Your task to perform on an android device: Search for "razer deathadder" on amazon.com, select the first entry, and add it to the cart. Image 0: 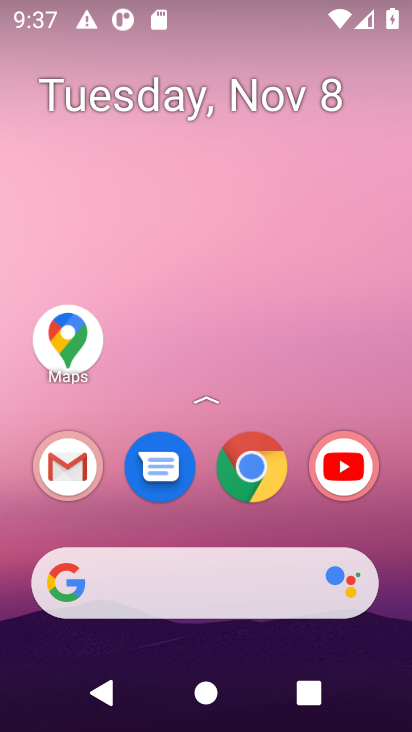
Step 0: click (225, 571)
Your task to perform on an android device: Search for "razer deathadder" on amazon.com, select the first entry, and add it to the cart. Image 1: 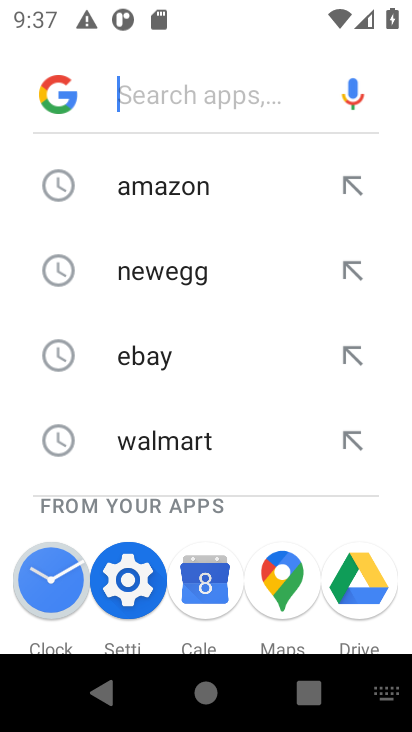
Step 1: click (160, 169)
Your task to perform on an android device: Search for "razer deathadder" on amazon.com, select the first entry, and add it to the cart. Image 2: 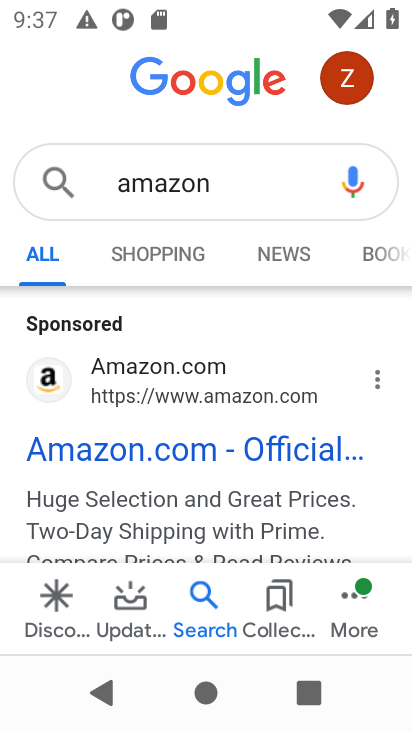
Step 2: click (178, 462)
Your task to perform on an android device: Search for "razer deathadder" on amazon.com, select the first entry, and add it to the cart. Image 3: 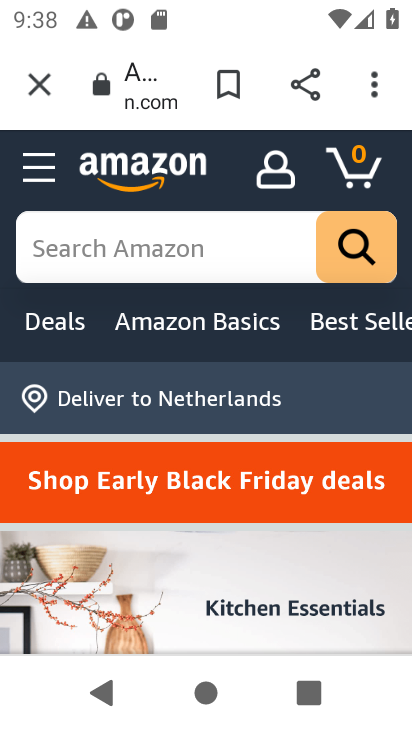
Step 3: click (207, 259)
Your task to perform on an android device: Search for "razer deathadder" on amazon.com, select the first entry, and add it to the cart. Image 4: 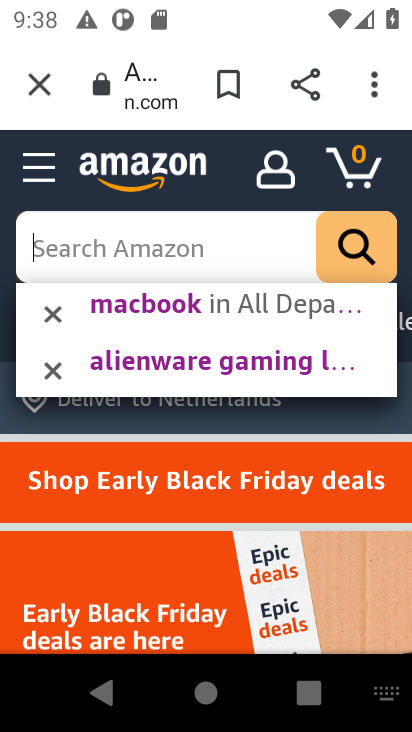
Step 4: type "razer deathadder"
Your task to perform on an android device: Search for "razer deathadder" on amazon.com, select the first entry, and add it to the cart. Image 5: 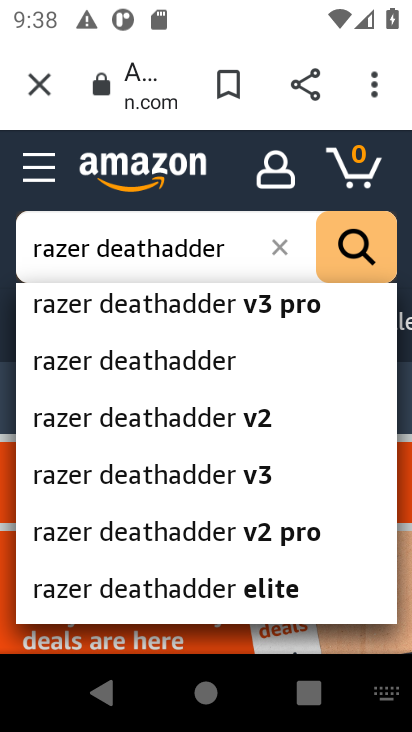
Step 5: click (230, 317)
Your task to perform on an android device: Search for "razer deathadder" on amazon.com, select the first entry, and add it to the cart. Image 6: 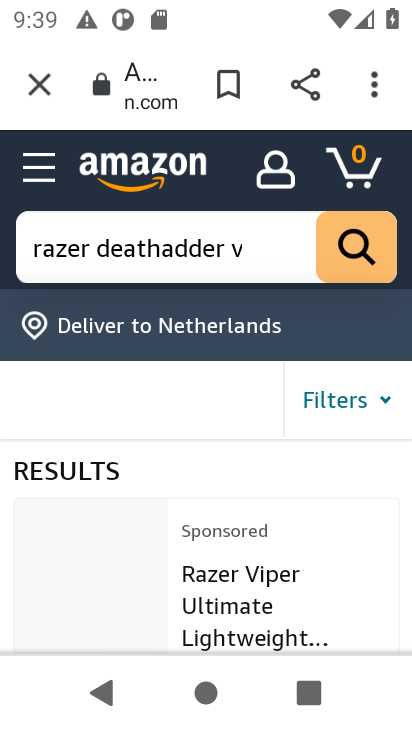
Step 6: task complete